Your task to perform on an android device: refresh tabs in the chrome app Image 0: 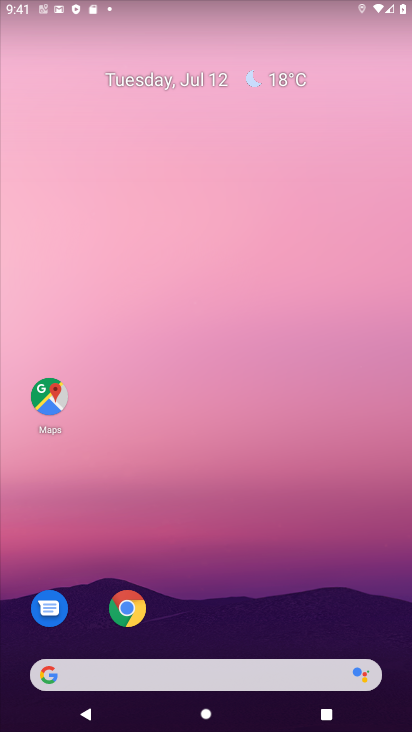
Step 0: click (130, 607)
Your task to perform on an android device: refresh tabs in the chrome app Image 1: 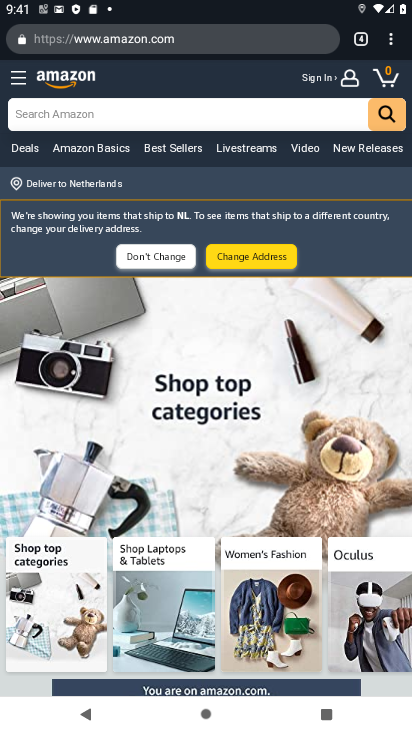
Step 1: click (395, 40)
Your task to perform on an android device: refresh tabs in the chrome app Image 2: 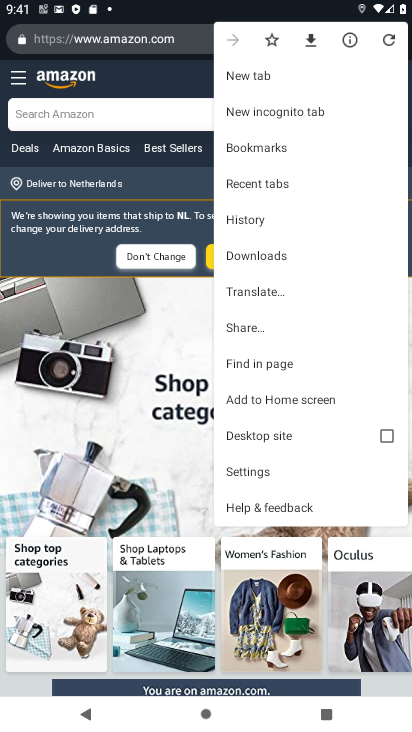
Step 2: click (389, 41)
Your task to perform on an android device: refresh tabs in the chrome app Image 3: 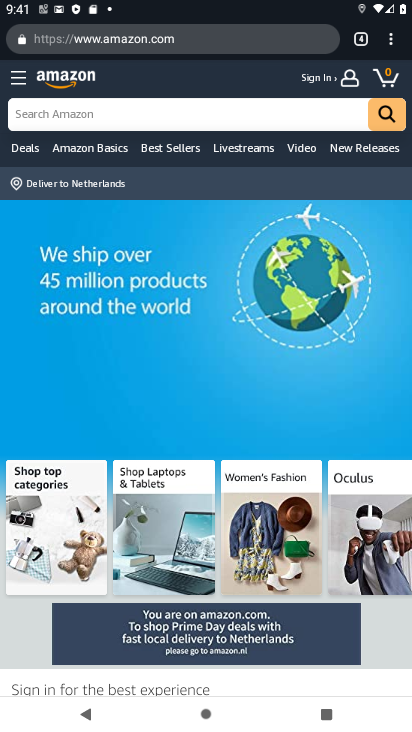
Step 3: task complete